Your task to perform on an android device: Open the map Image 0: 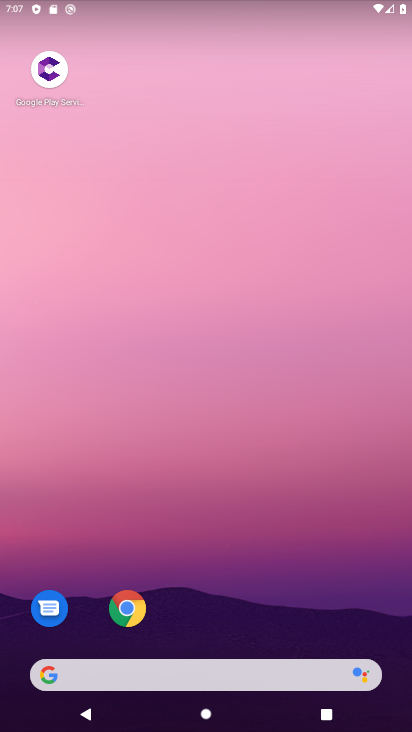
Step 0: drag from (264, 624) to (329, 198)
Your task to perform on an android device: Open the map Image 1: 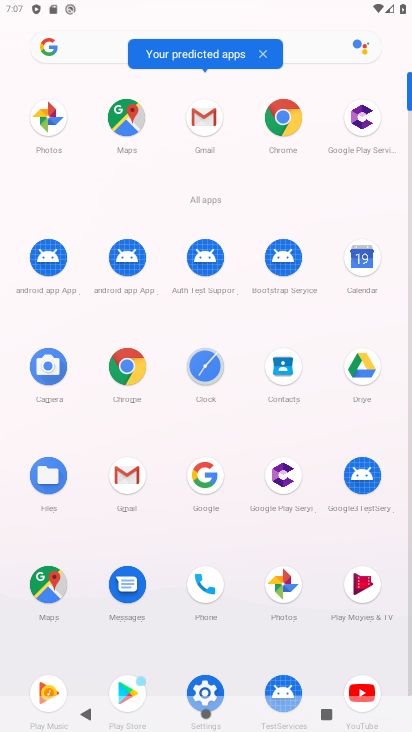
Step 1: click (45, 574)
Your task to perform on an android device: Open the map Image 2: 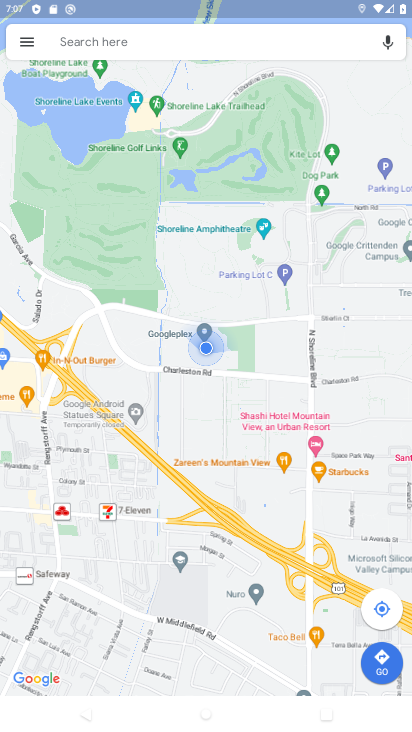
Step 2: task complete